Your task to perform on an android device: Open my contact list Image 0: 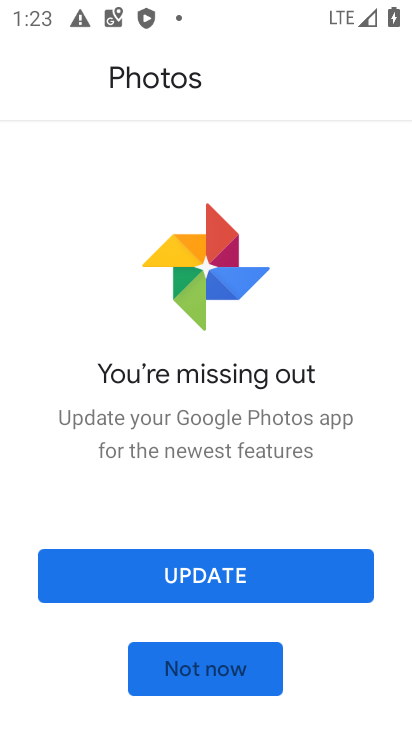
Step 0: press home button
Your task to perform on an android device: Open my contact list Image 1: 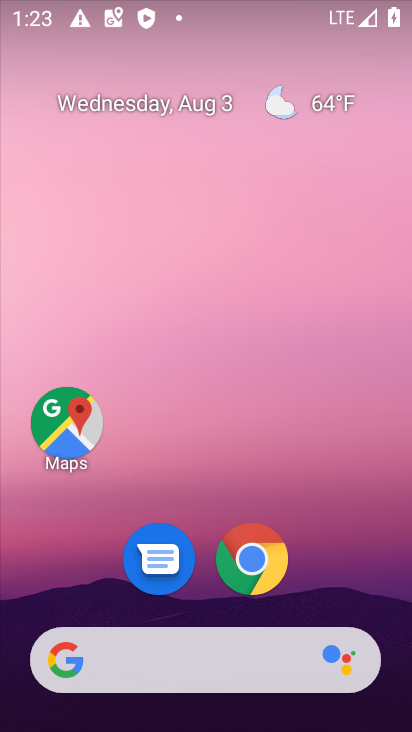
Step 1: drag from (197, 621) to (203, 19)
Your task to perform on an android device: Open my contact list Image 2: 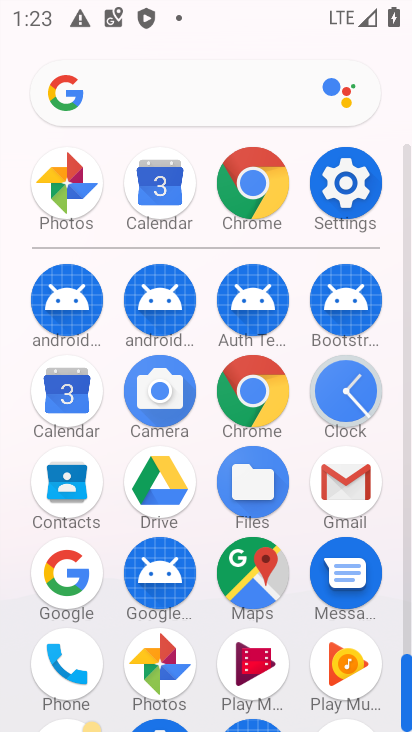
Step 2: click (73, 493)
Your task to perform on an android device: Open my contact list Image 3: 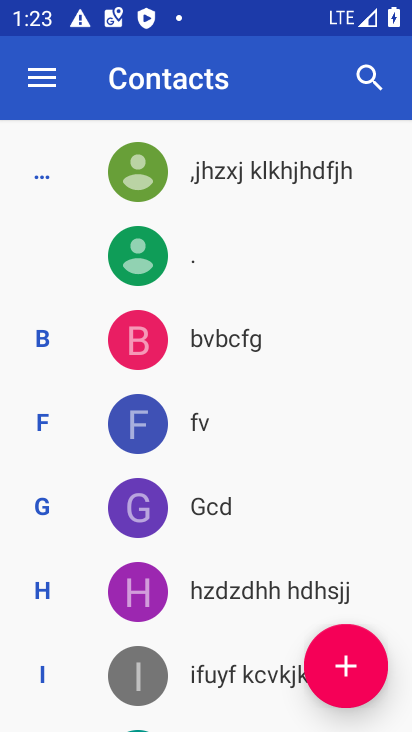
Step 3: task complete